Your task to perform on an android device: clear history in the chrome app Image 0: 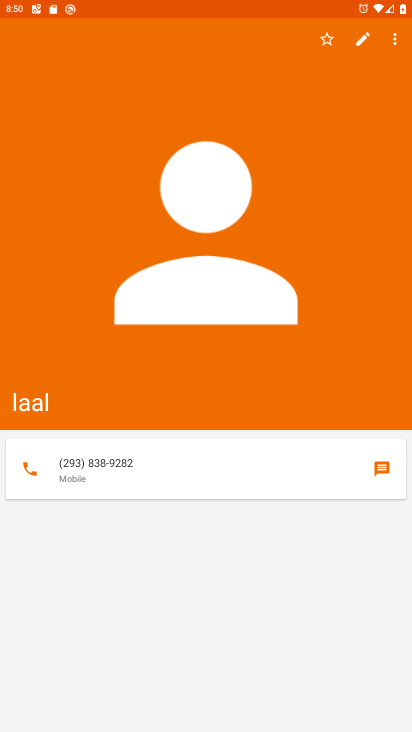
Step 0: press home button
Your task to perform on an android device: clear history in the chrome app Image 1: 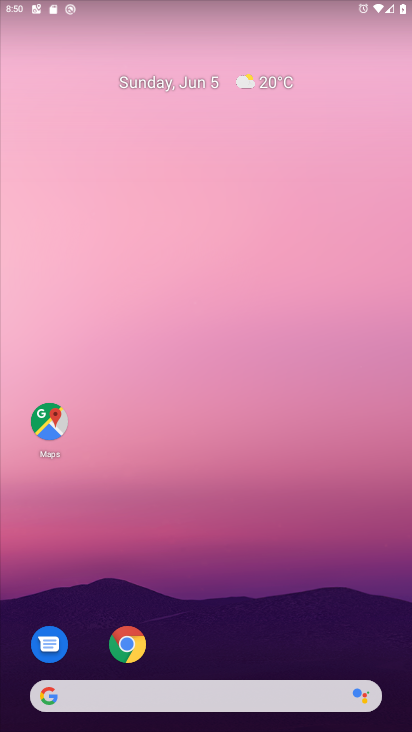
Step 1: drag from (350, 606) to (254, 76)
Your task to perform on an android device: clear history in the chrome app Image 2: 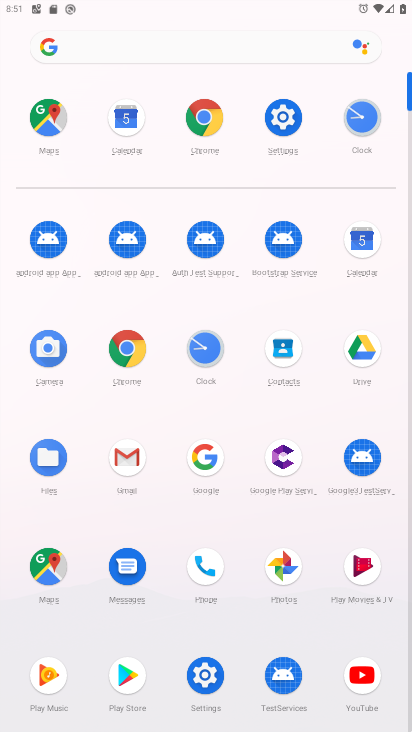
Step 2: click (120, 369)
Your task to perform on an android device: clear history in the chrome app Image 3: 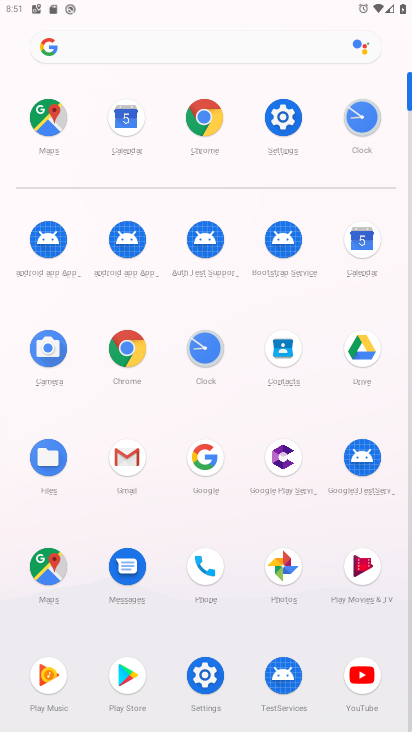
Step 3: click (129, 369)
Your task to perform on an android device: clear history in the chrome app Image 4: 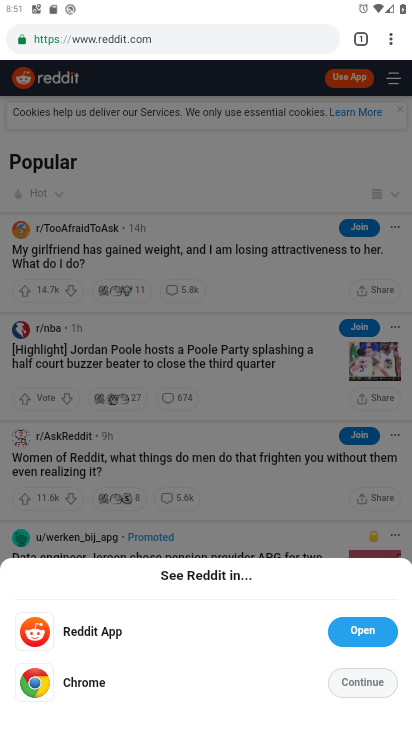
Step 4: drag from (389, 38) to (288, 226)
Your task to perform on an android device: clear history in the chrome app Image 5: 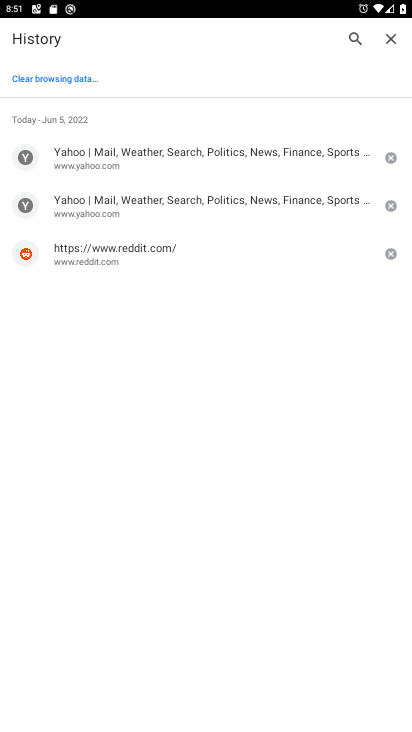
Step 5: click (27, 78)
Your task to perform on an android device: clear history in the chrome app Image 6: 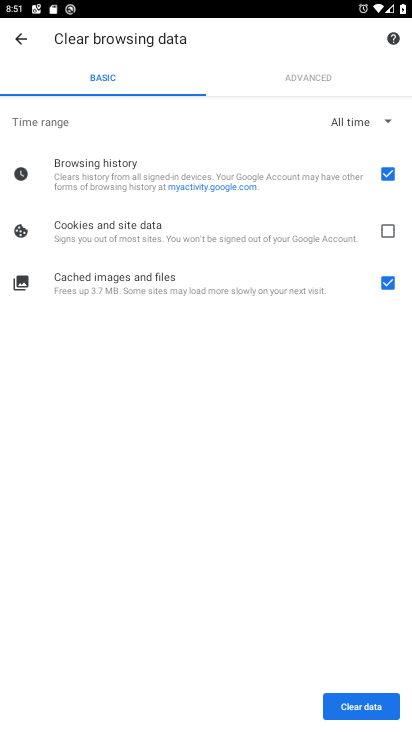
Step 6: click (376, 699)
Your task to perform on an android device: clear history in the chrome app Image 7: 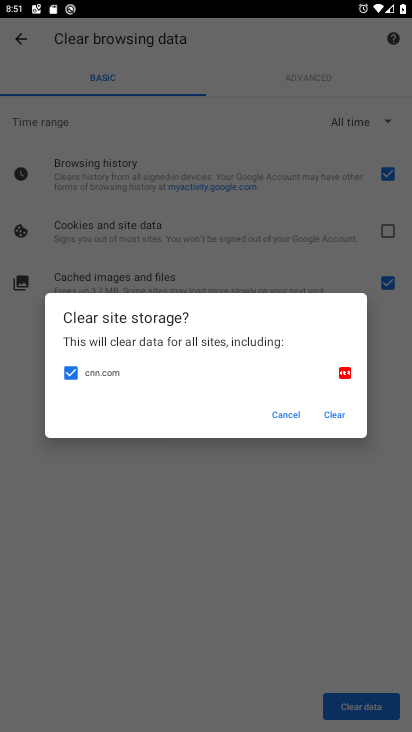
Step 7: click (339, 414)
Your task to perform on an android device: clear history in the chrome app Image 8: 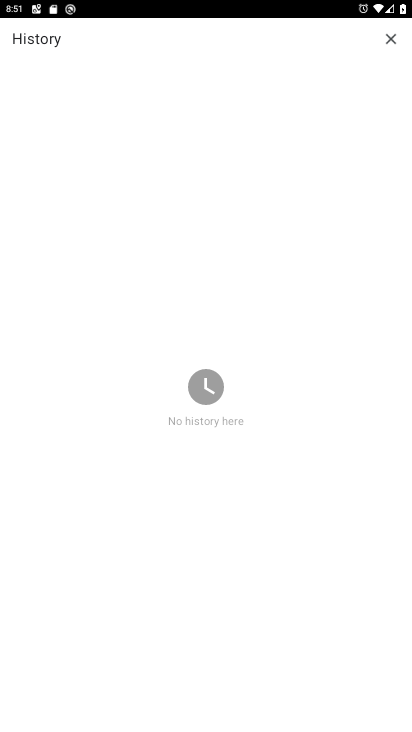
Step 8: task complete